Your task to perform on an android device: change your default location settings in chrome Image 0: 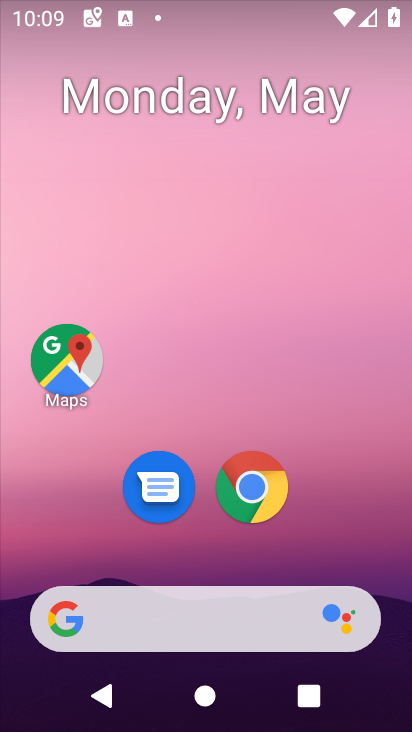
Step 0: click (258, 506)
Your task to perform on an android device: change your default location settings in chrome Image 1: 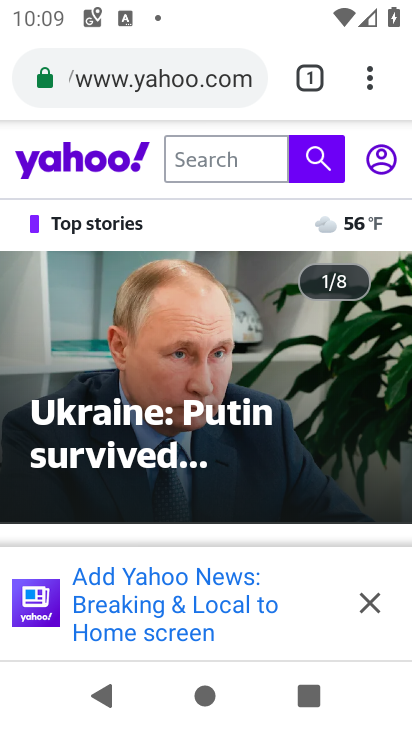
Step 1: click (381, 75)
Your task to perform on an android device: change your default location settings in chrome Image 2: 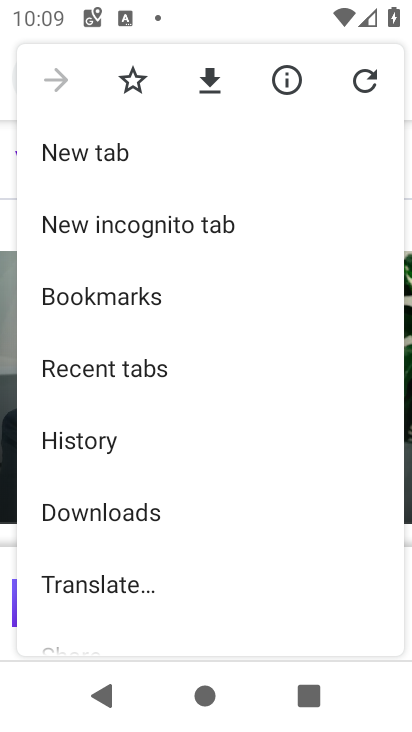
Step 2: drag from (132, 540) to (143, 108)
Your task to perform on an android device: change your default location settings in chrome Image 3: 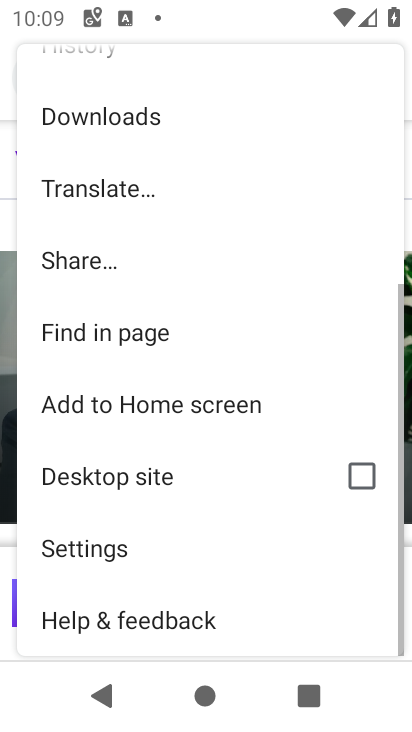
Step 3: click (52, 541)
Your task to perform on an android device: change your default location settings in chrome Image 4: 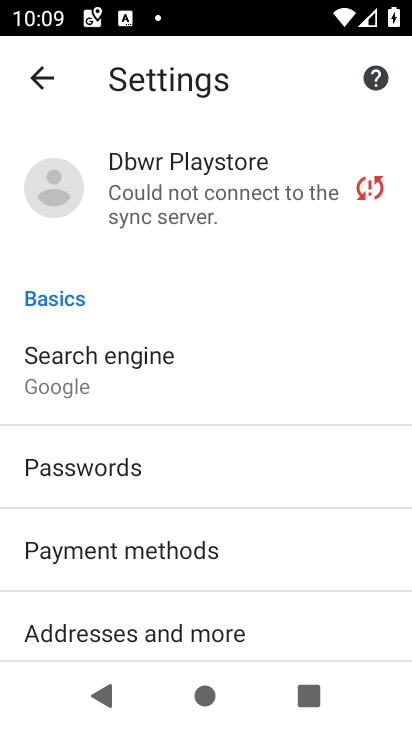
Step 4: click (97, 393)
Your task to perform on an android device: change your default location settings in chrome Image 5: 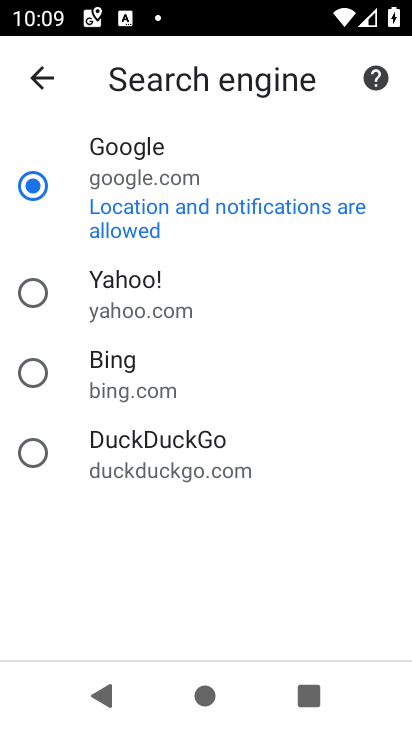
Step 5: click (97, 393)
Your task to perform on an android device: change your default location settings in chrome Image 6: 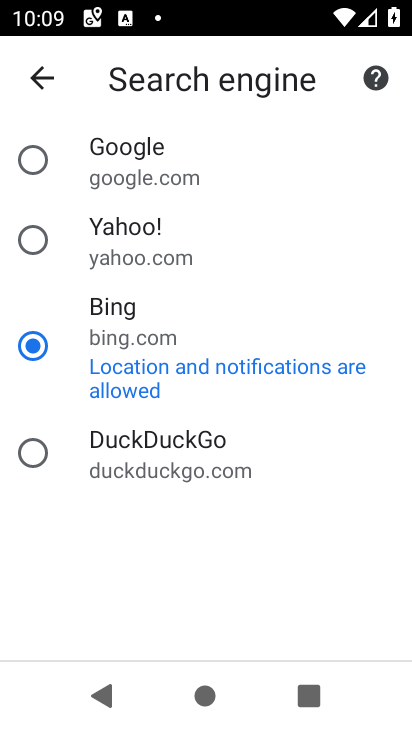
Step 6: task complete